Your task to perform on an android device: clear history in the chrome app Image 0: 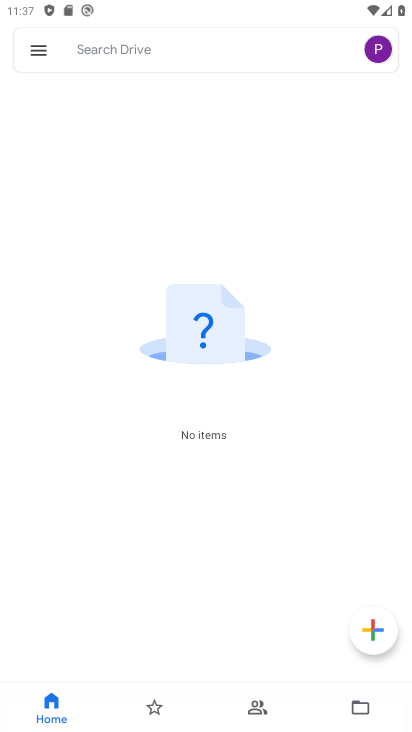
Step 0: drag from (197, 605) to (217, 235)
Your task to perform on an android device: clear history in the chrome app Image 1: 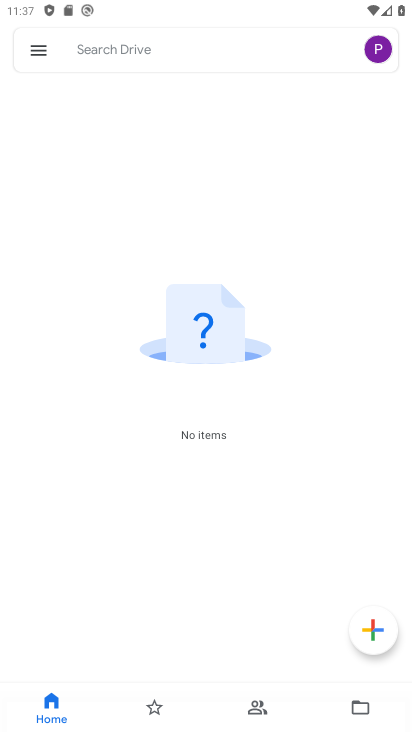
Step 1: press home button
Your task to perform on an android device: clear history in the chrome app Image 2: 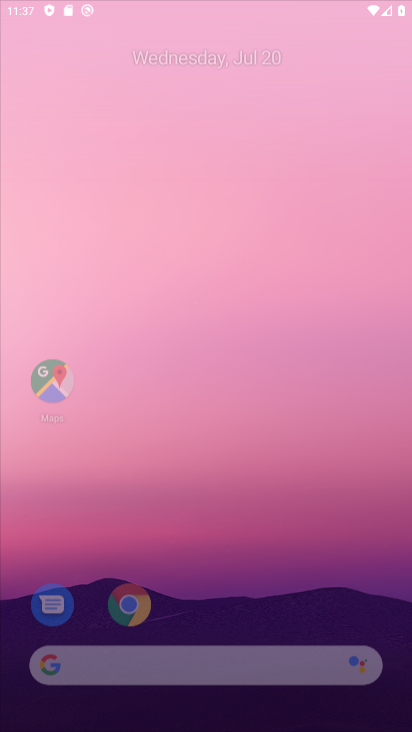
Step 2: drag from (231, 592) to (226, 133)
Your task to perform on an android device: clear history in the chrome app Image 3: 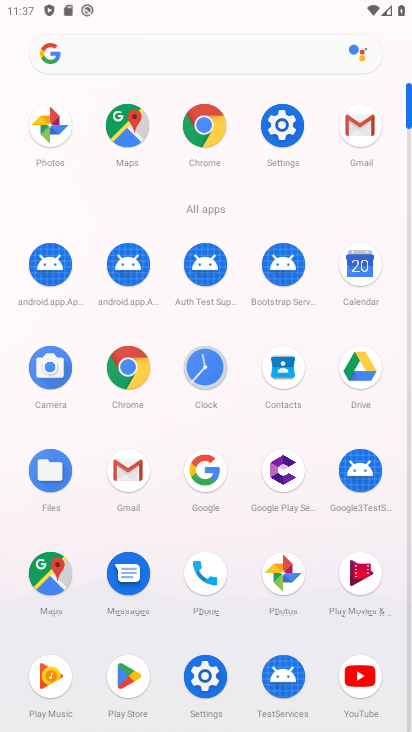
Step 3: click (126, 364)
Your task to perform on an android device: clear history in the chrome app Image 4: 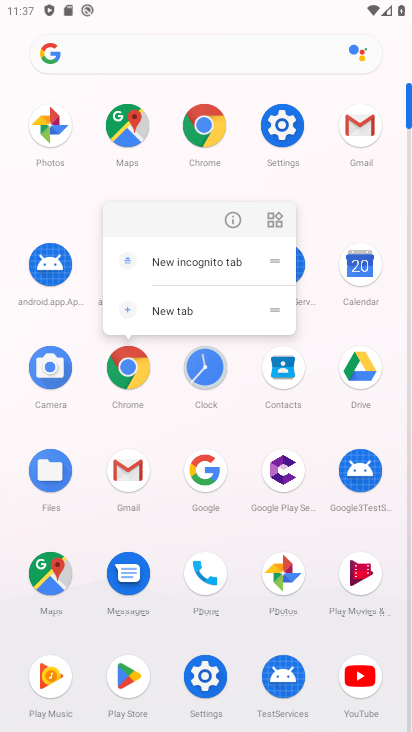
Step 4: click (232, 222)
Your task to perform on an android device: clear history in the chrome app Image 5: 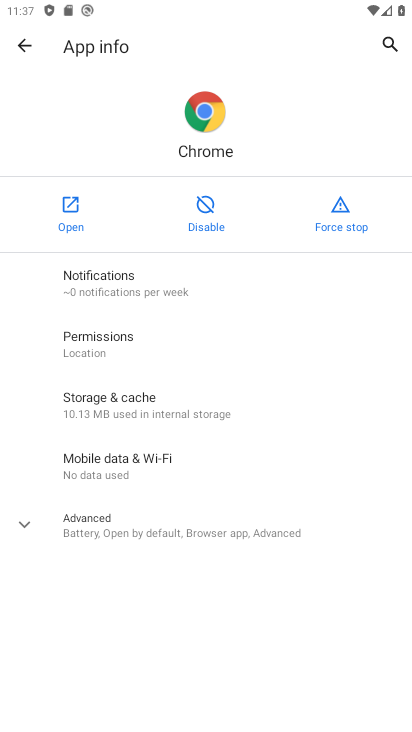
Step 5: click (46, 215)
Your task to perform on an android device: clear history in the chrome app Image 6: 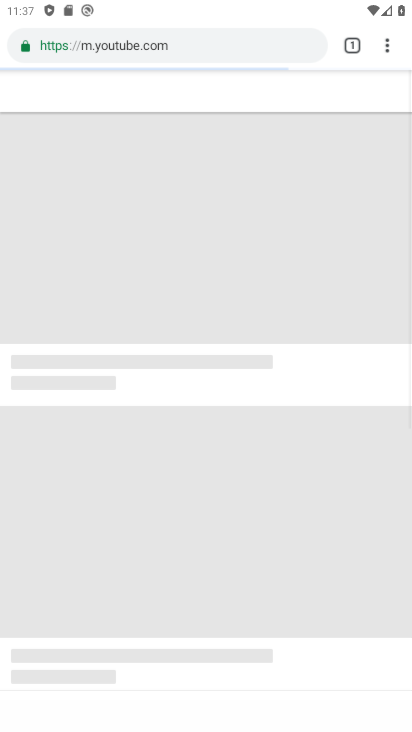
Step 6: drag from (382, 40) to (229, 254)
Your task to perform on an android device: clear history in the chrome app Image 7: 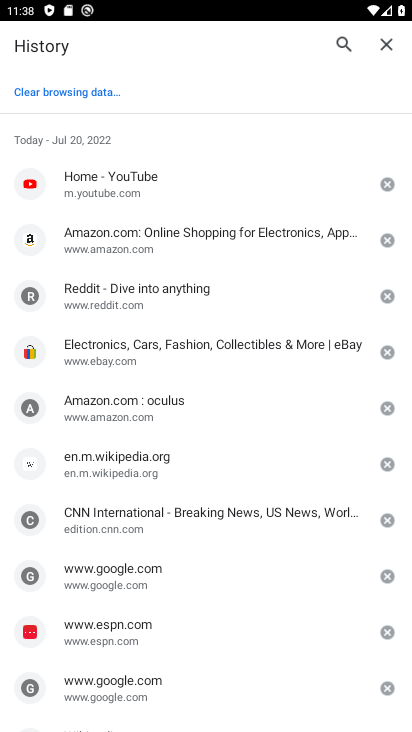
Step 7: click (63, 90)
Your task to perform on an android device: clear history in the chrome app Image 8: 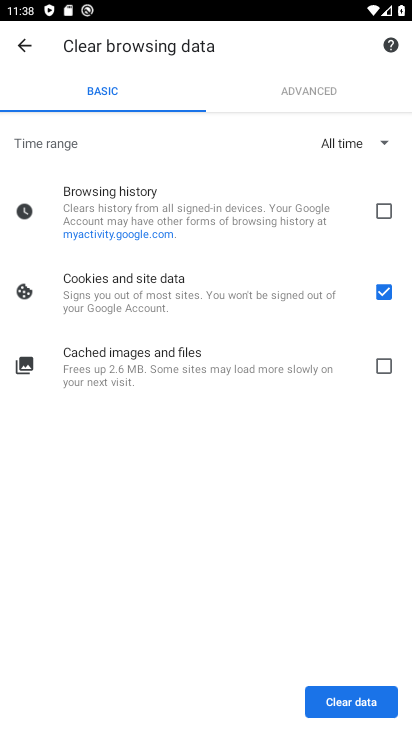
Step 8: click (343, 707)
Your task to perform on an android device: clear history in the chrome app Image 9: 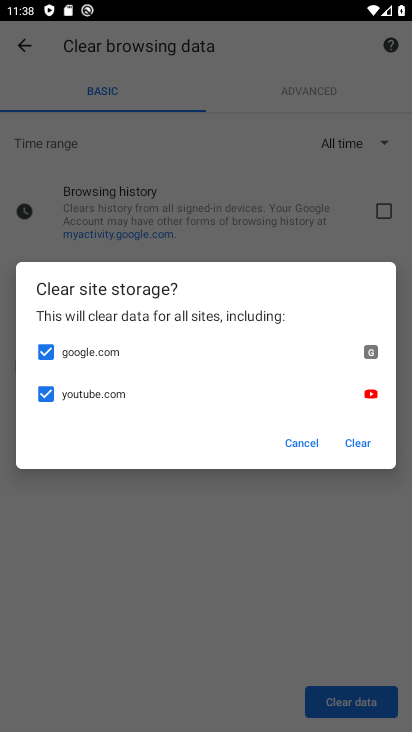
Step 9: click (360, 440)
Your task to perform on an android device: clear history in the chrome app Image 10: 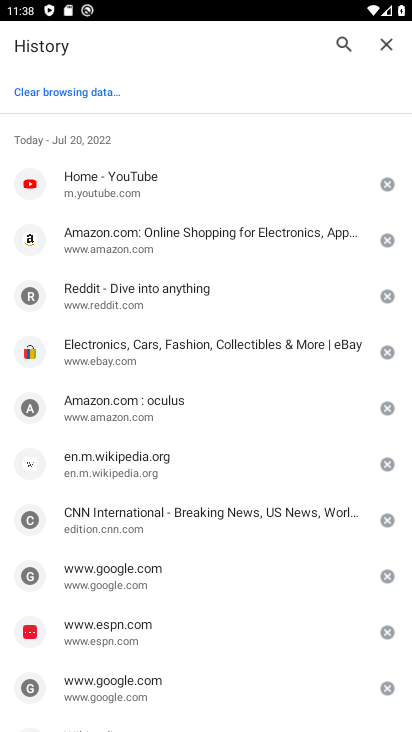
Step 10: click (45, 86)
Your task to perform on an android device: clear history in the chrome app Image 11: 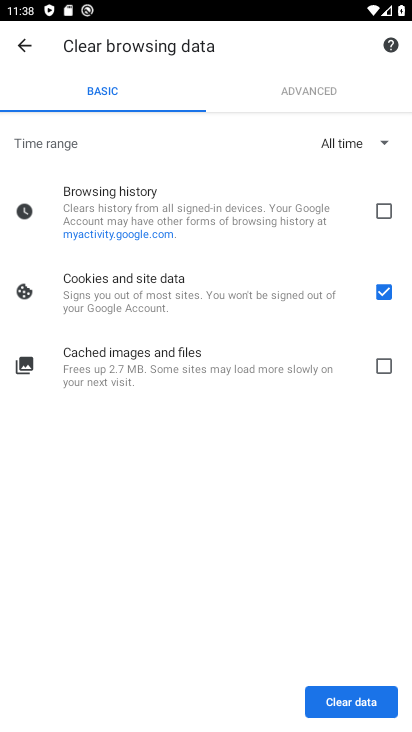
Step 11: click (376, 216)
Your task to perform on an android device: clear history in the chrome app Image 12: 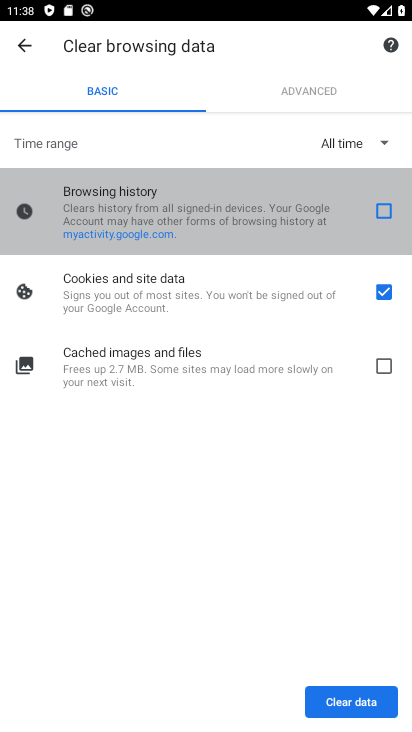
Step 12: click (380, 345)
Your task to perform on an android device: clear history in the chrome app Image 13: 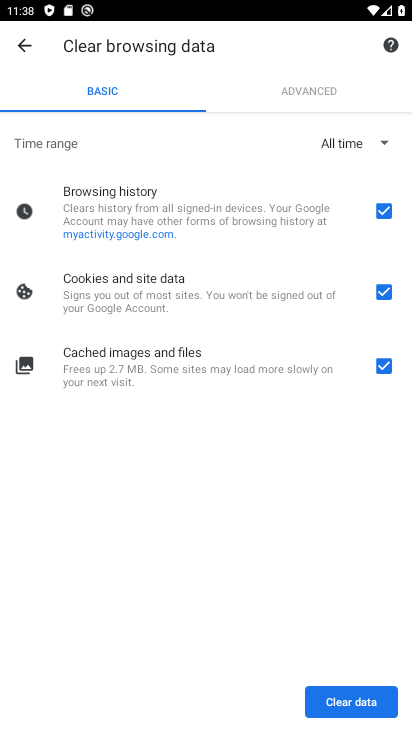
Step 13: click (332, 708)
Your task to perform on an android device: clear history in the chrome app Image 14: 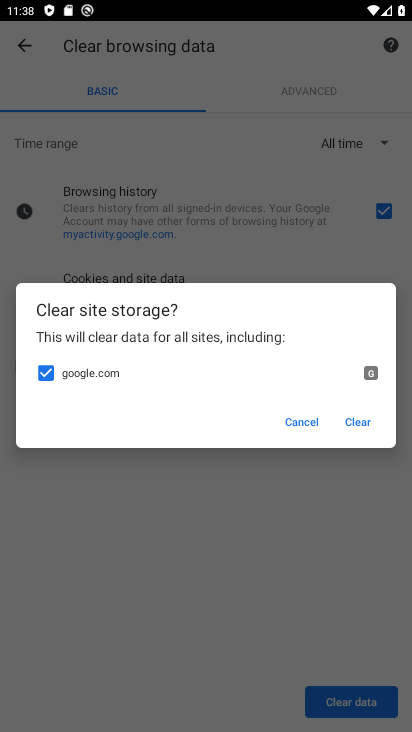
Step 14: click (350, 421)
Your task to perform on an android device: clear history in the chrome app Image 15: 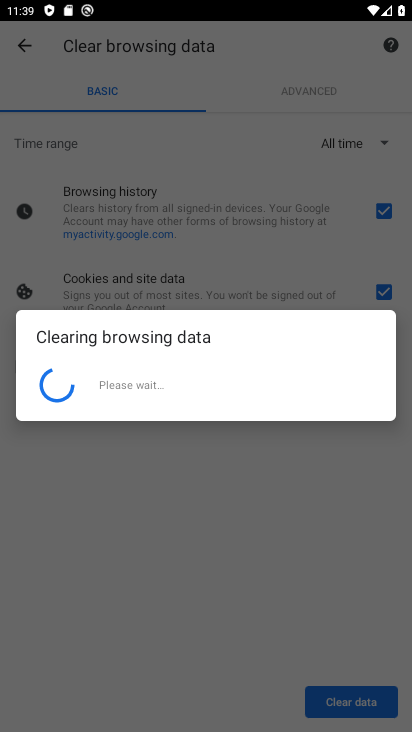
Step 15: task complete